Your task to perform on an android device: Open Chrome and go to the settings page Image 0: 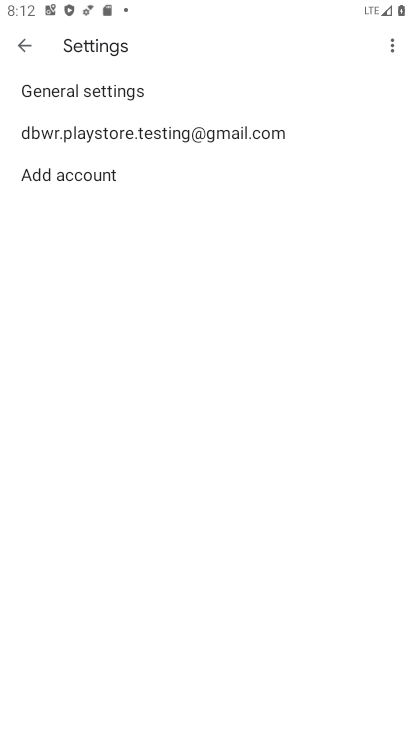
Step 0: press home button
Your task to perform on an android device: Open Chrome and go to the settings page Image 1: 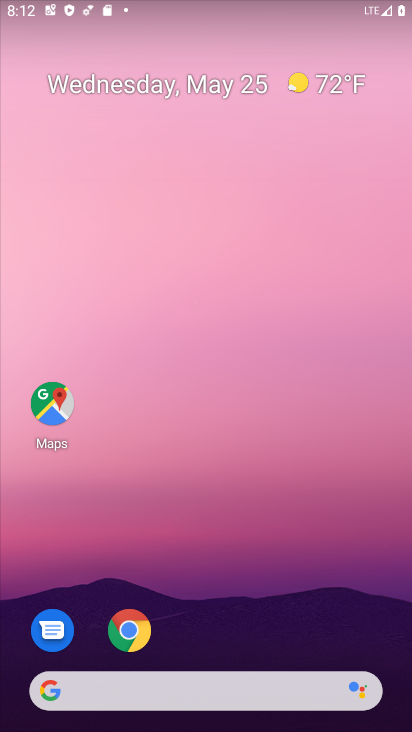
Step 1: click (133, 639)
Your task to perform on an android device: Open Chrome and go to the settings page Image 2: 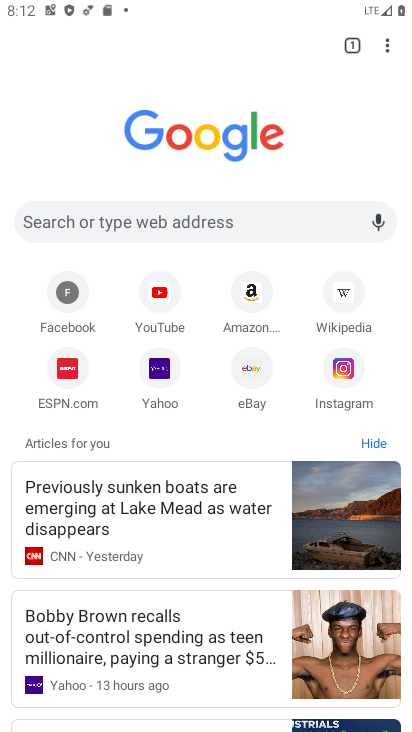
Step 2: click (386, 53)
Your task to perform on an android device: Open Chrome and go to the settings page Image 3: 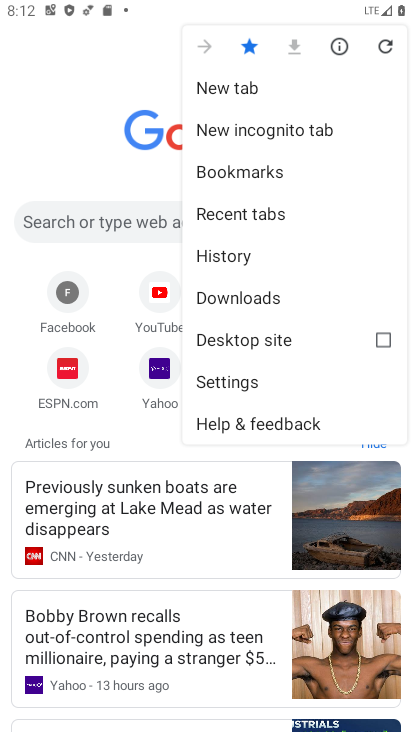
Step 3: click (243, 386)
Your task to perform on an android device: Open Chrome and go to the settings page Image 4: 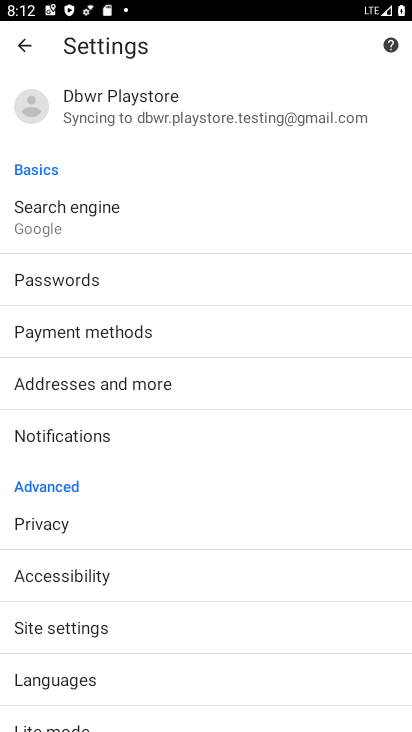
Step 4: task complete